Your task to perform on an android device: toggle notifications settings in the gmail app Image 0: 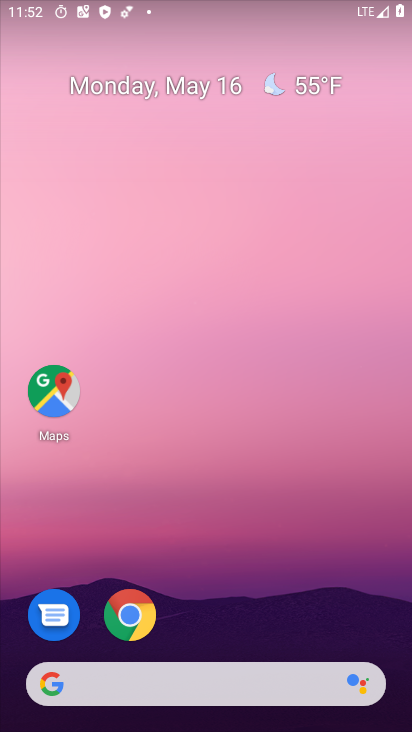
Step 0: drag from (244, 634) to (275, 170)
Your task to perform on an android device: toggle notifications settings in the gmail app Image 1: 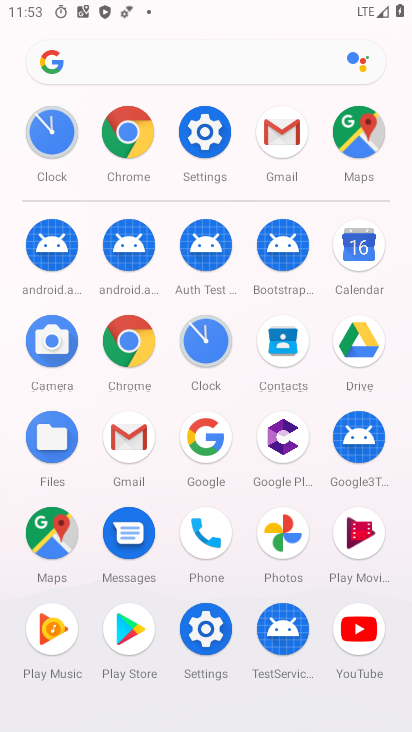
Step 1: click (283, 135)
Your task to perform on an android device: toggle notifications settings in the gmail app Image 2: 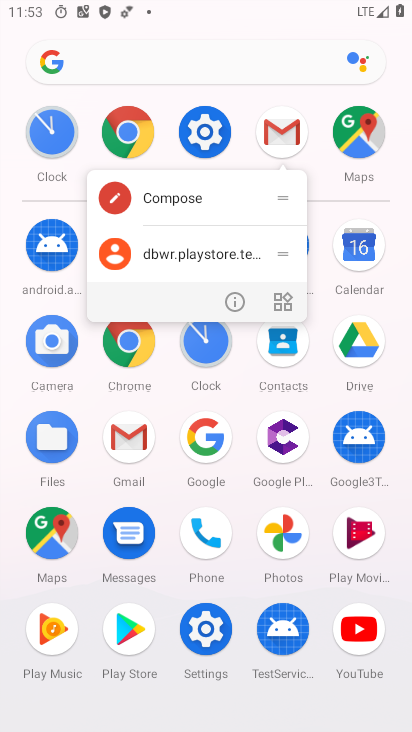
Step 2: click (232, 299)
Your task to perform on an android device: toggle notifications settings in the gmail app Image 3: 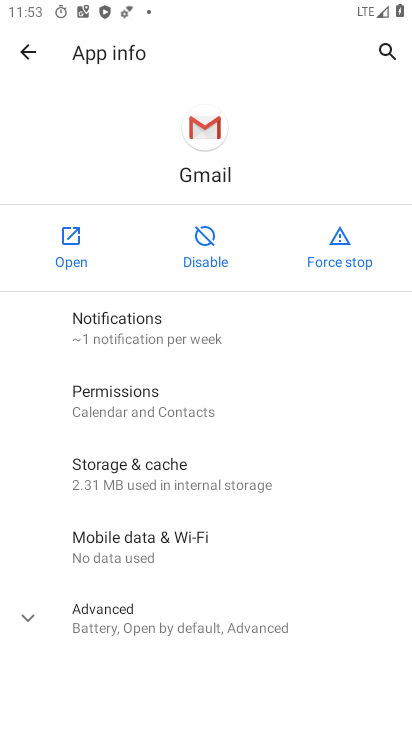
Step 3: click (181, 329)
Your task to perform on an android device: toggle notifications settings in the gmail app Image 4: 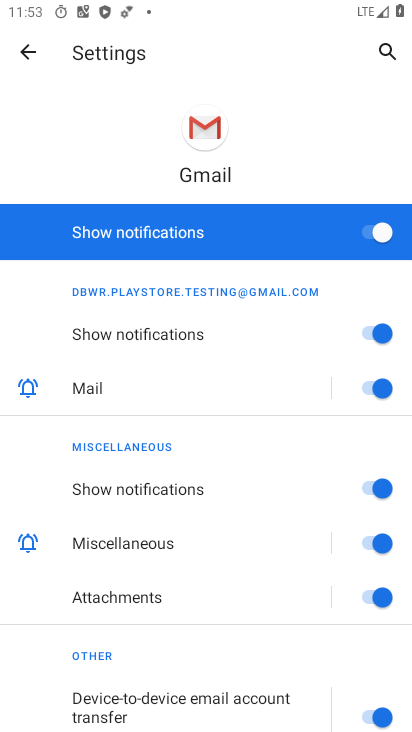
Step 4: click (372, 234)
Your task to perform on an android device: toggle notifications settings in the gmail app Image 5: 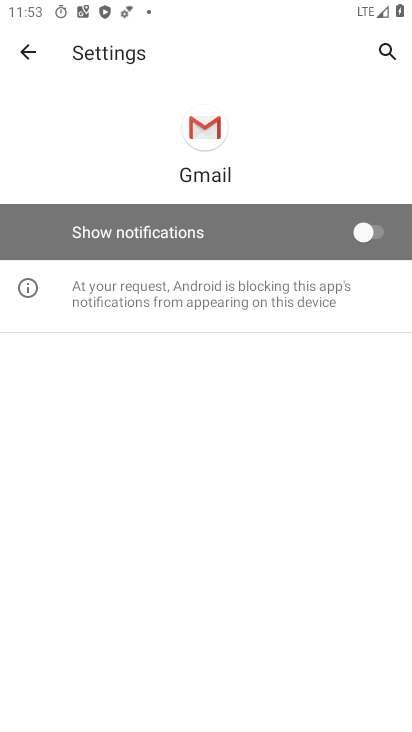
Step 5: task complete